Your task to perform on an android device: Open CNN.com Image 0: 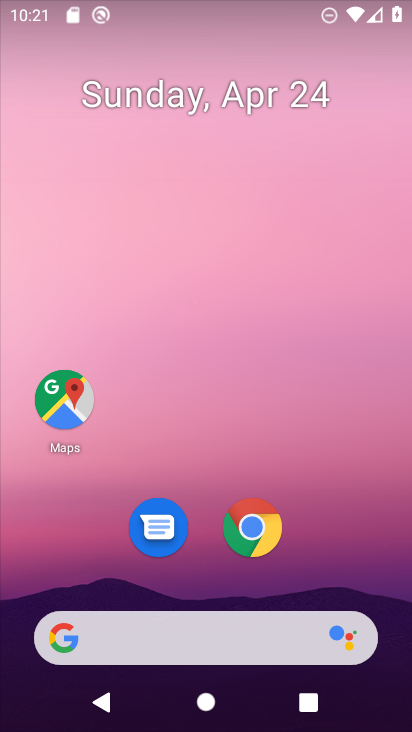
Step 0: drag from (376, 488) to (304, 82)
Your task to perform on an android device: Open CNN.com Image 1: 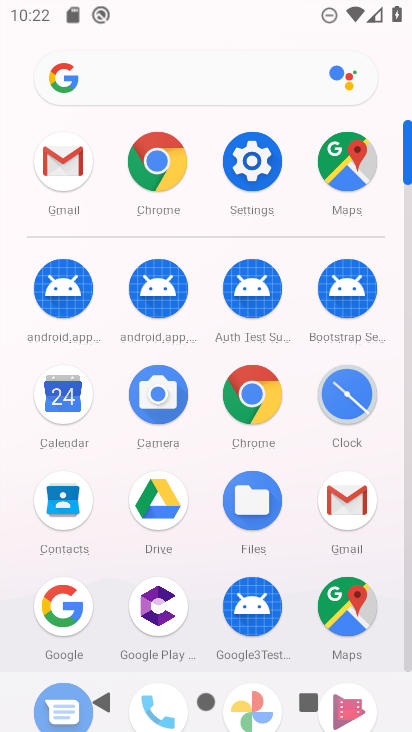
Step 1: click (410, 672)
Your task to perform on an android device: Open CNN.com Image 2: 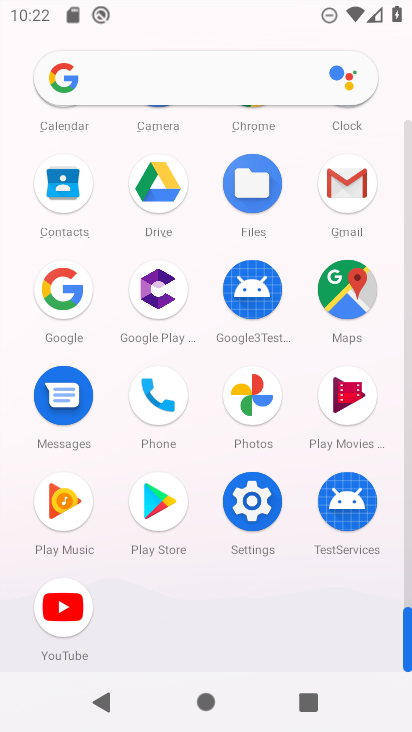
Step 2: click (410, 121)
Your task to perform on an android device: Open CNN.com Image 3: 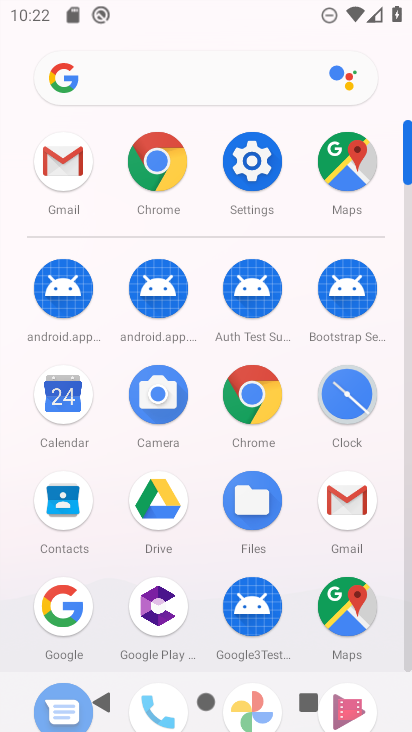
Step 3: click (258, 386)
Your task to perform on an android device: Open CNN.com Image 4: 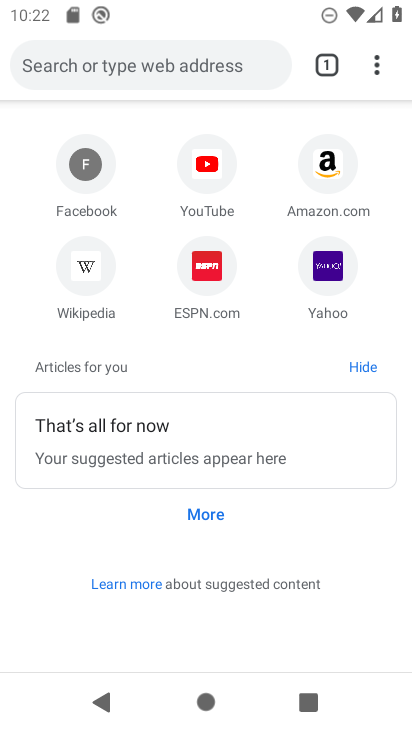
Step 4: click (199, 73)
Your task to perform on an android device: Open CNN.com Image 5: 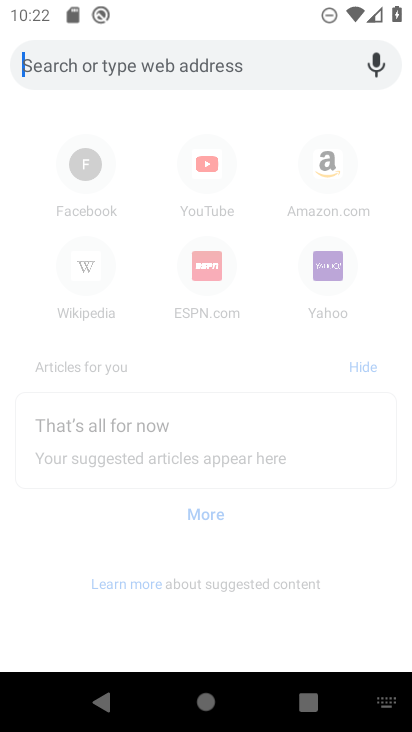
Step 5: type "cnn.com"
Your task to perform on an android device: Open CNN.com Image 6: 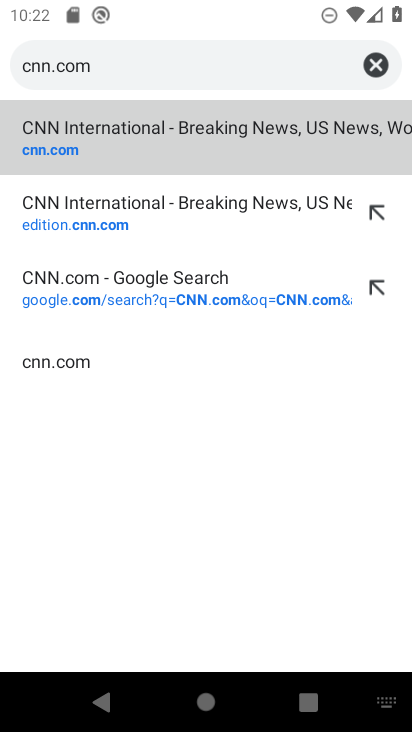
Step 6: click (148, 143)
Your task to perform on an android device: Open CNN.com Image 7: 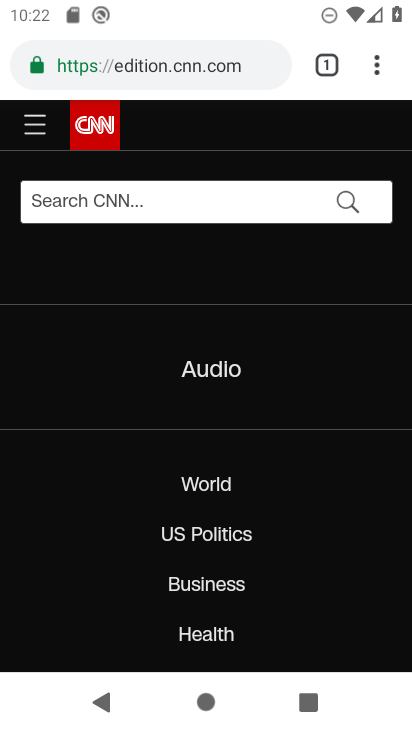
Step 7: task complete